Your task to perform on an android device: turn on priority inbox in the gmail app Image 0: 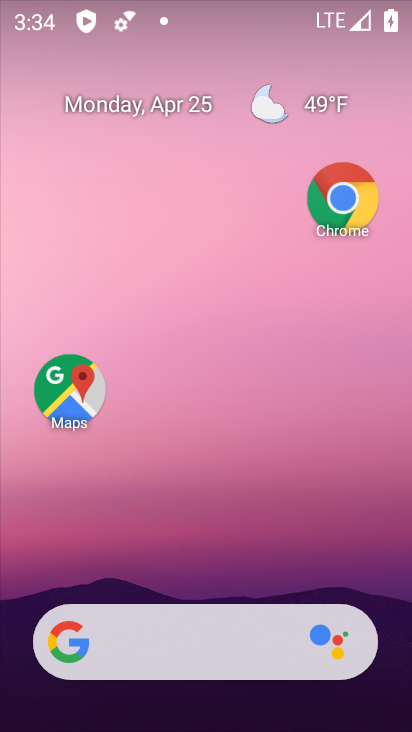
Step 0: drag from (197, 628) to (231, 83)
Your task to perform on an android device: turn on priority inbox in the gmail app Image 1: 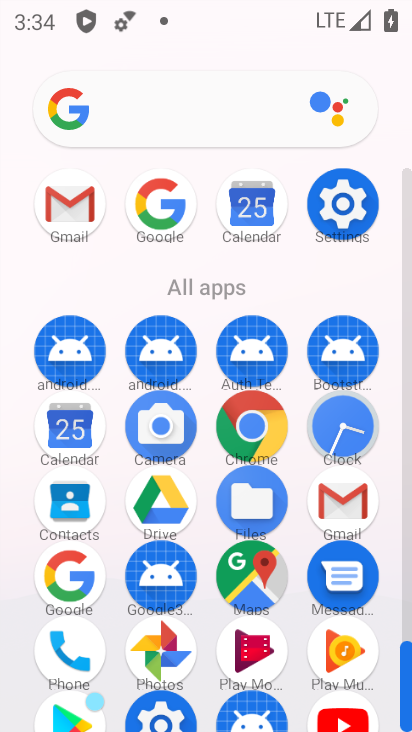
Step 1: click (67, 223)
Your task to perform on an android device: turn on priority inbox in the gmail app Image 2: 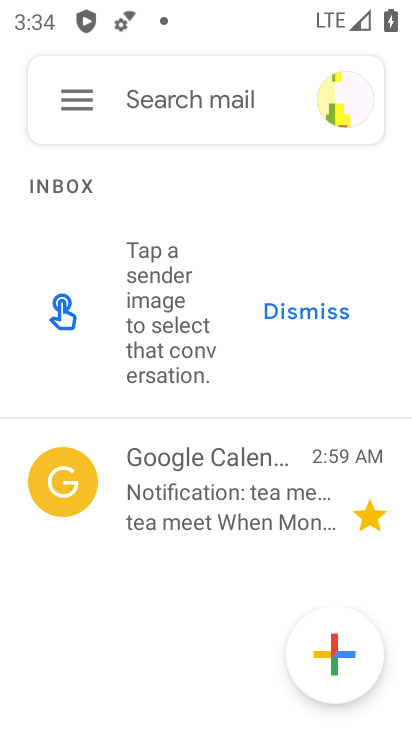
Step 2: click (78, 97)
Your task to perform on an android device: turn on priority inbox in the gmail app Image 3: 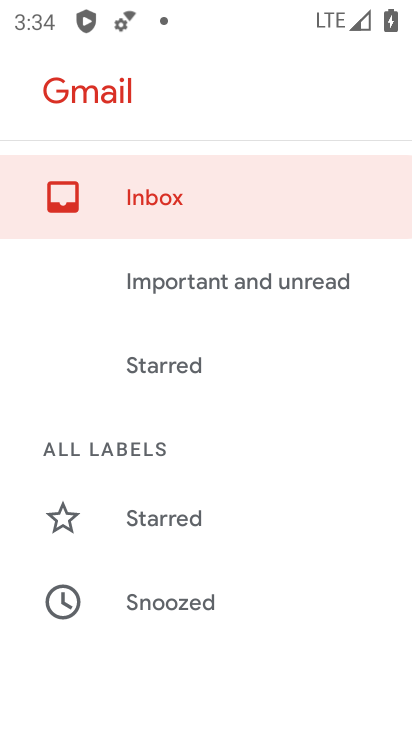
Step 3: drag from (231, 597) to (364, 130)
Your task to perform on an android device: turn on priority inbox in the gmail app Image 4: 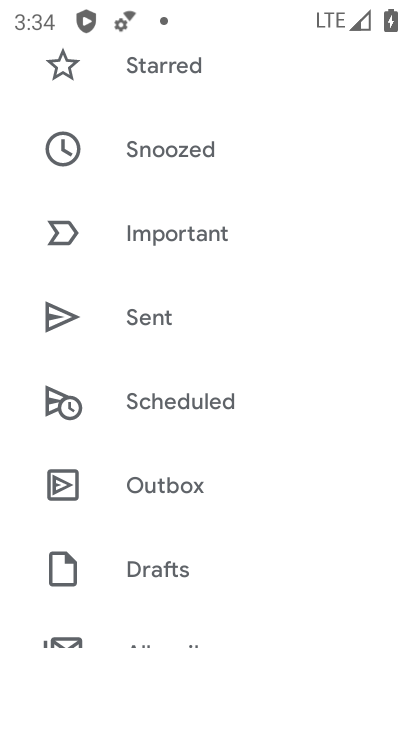
Step 4: drag from (248, 570) to (313, 124)
Your task to perform on an android device: turn on priority inbox in the gmail app Image 5: 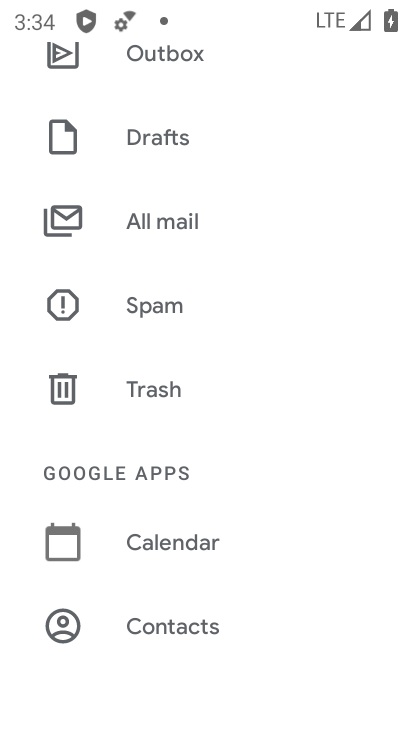
Step 5: drag from (225, 557) to (280, 82)
Your task to perform on an android device: turn on priority inbox in the gmail app Image 6: 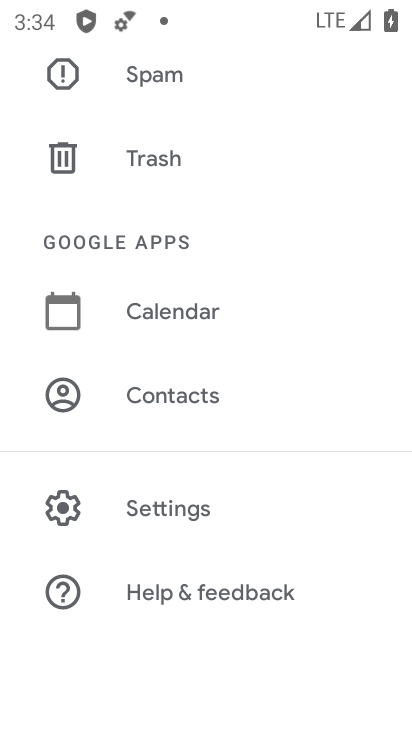
Step 6: click (192, 512)
Your task to perform on an android device: turn on priority inbox in the gmail app Image 7: 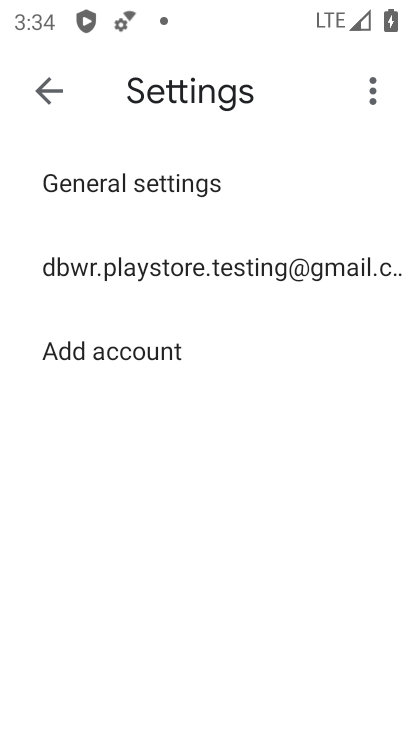
Step 7: click (237, 259)
Your task to perform on an android device: turn on priority inbox in the gmail app Image 8: 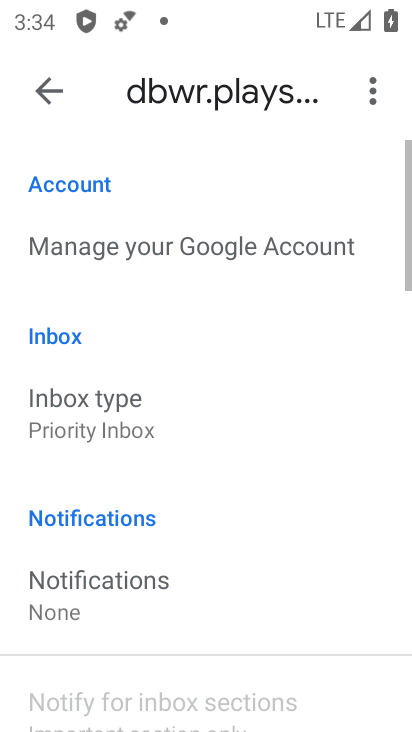
Step 8: click (116, 411)
Your task to perform on an android device: turn on priority inbox in the gmail app Image 9: 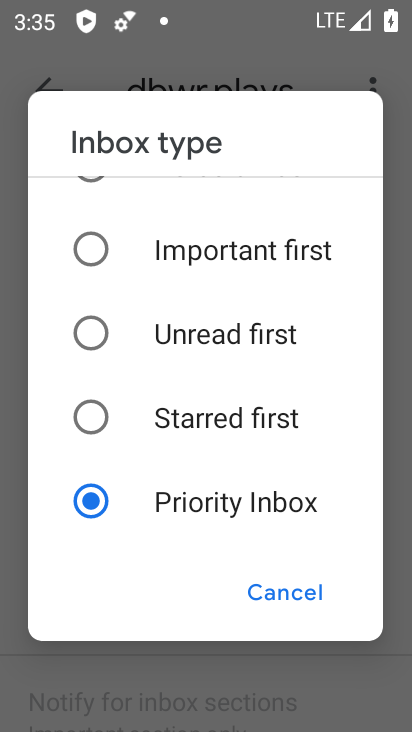
Step 9: task complete